Your task to perform on an android device: uninstall "Contacts" Image 0: 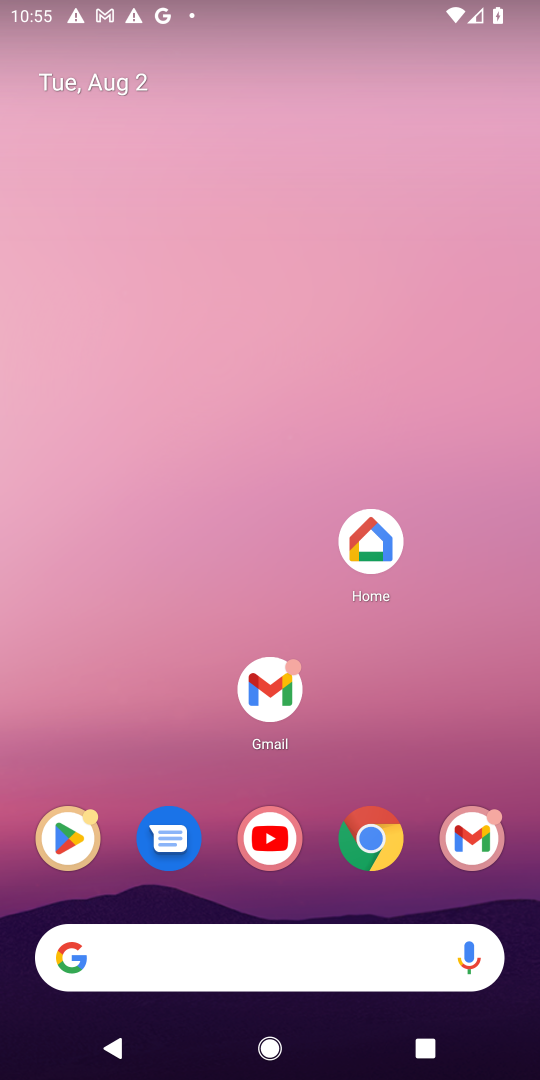
Step 0: press home button
Your task to perform on an android device: uninstall "Contacts" Image 1: 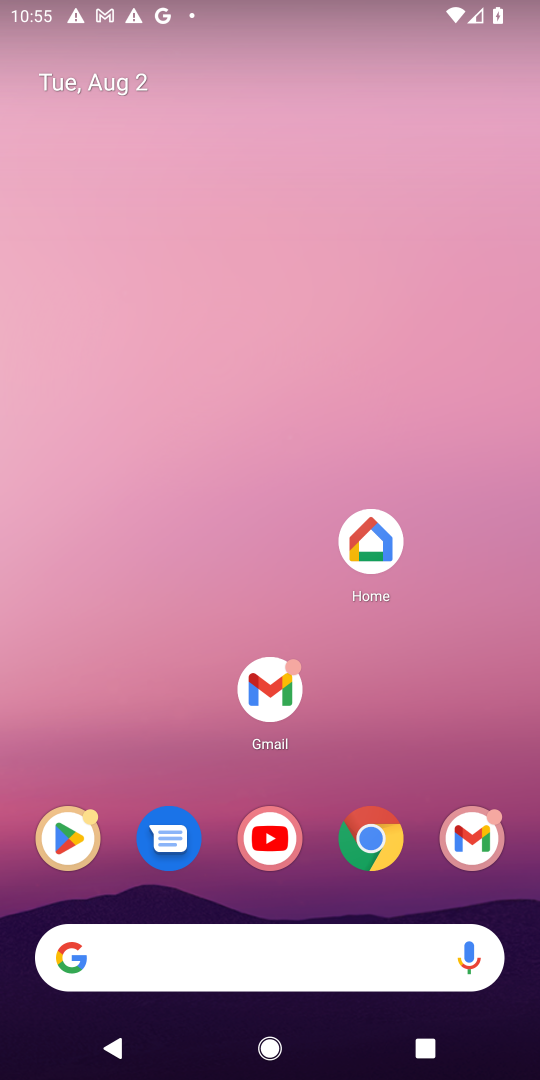
Step 1: drag from (427, 739) to (460, 170)
Your task to perform on an android device: uninstall "Contacts" Image 2: 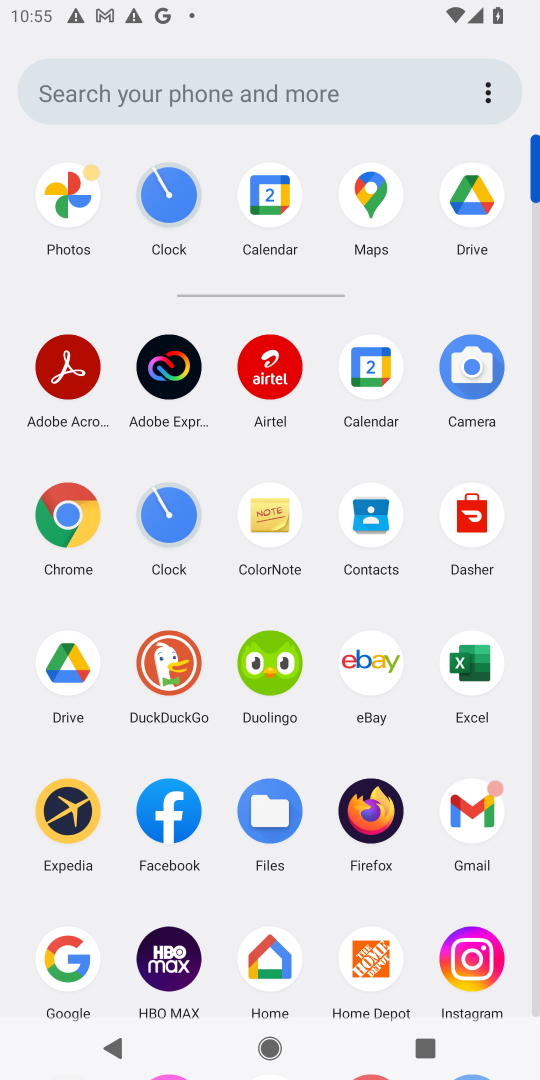
Step 2: drag from (305, 900) to (310, 436)
Your task to perform on an android device: uninstall "Contacts" Image 3: 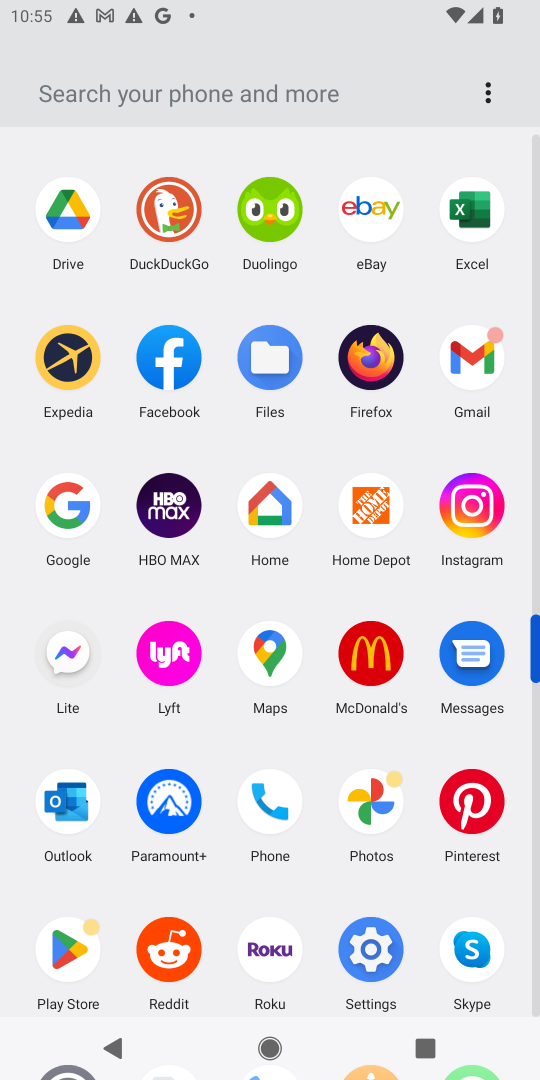
Step 3: click (58, 952)
Your task to perform on an android device: uninstall "Contacts" Image 4: 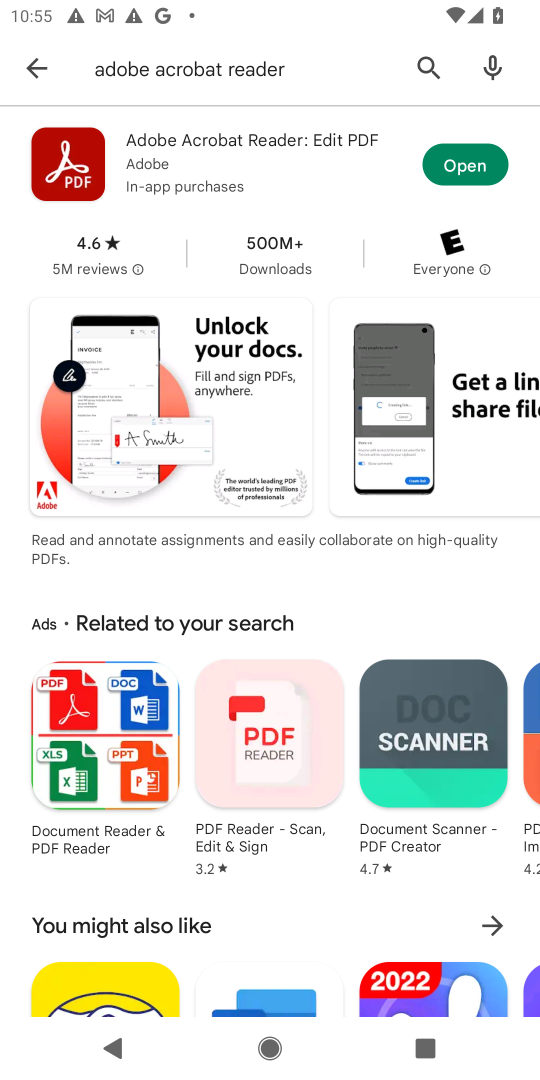
Step 4: click (425, 64)
Your task to perform on an android device: uninstall "Contacts" Image 5: 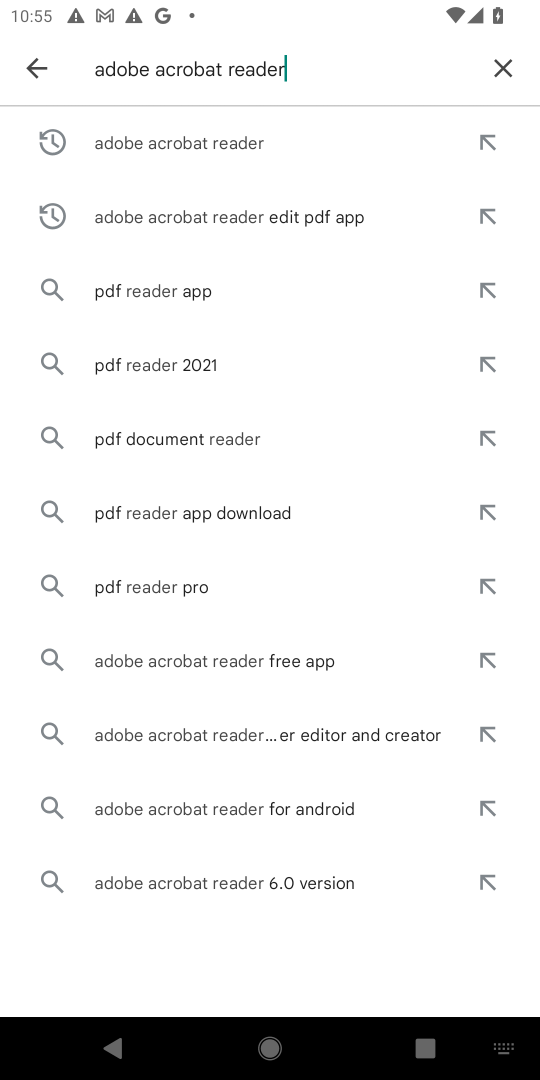
Step 5: click (503, 69)
Your task to perform on an android device: uninstall "Contacts" Image 6: 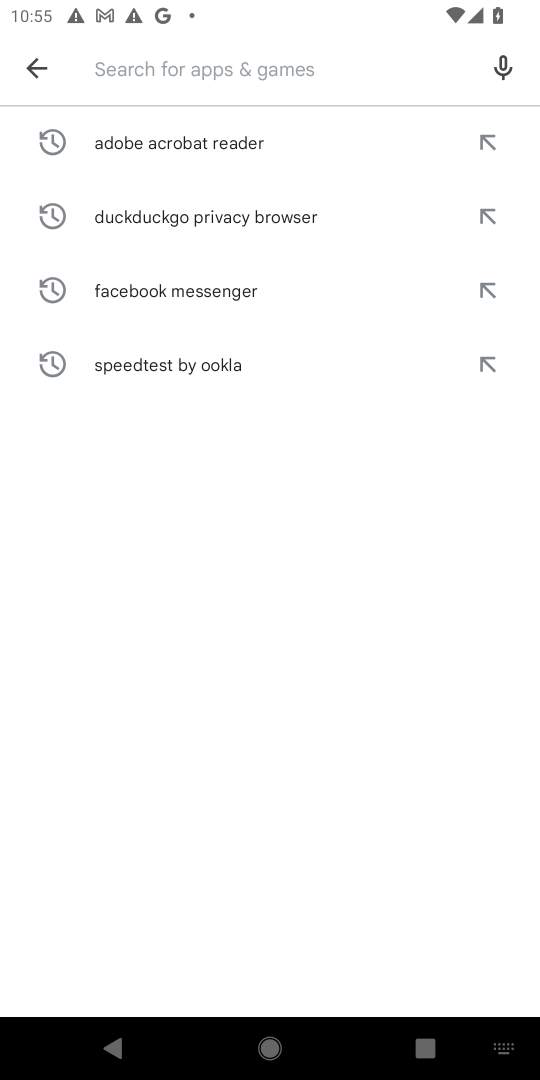
Step 6: click (294, 83)
Your task to perform on an android device: uninstall "Contacts" Image 7: 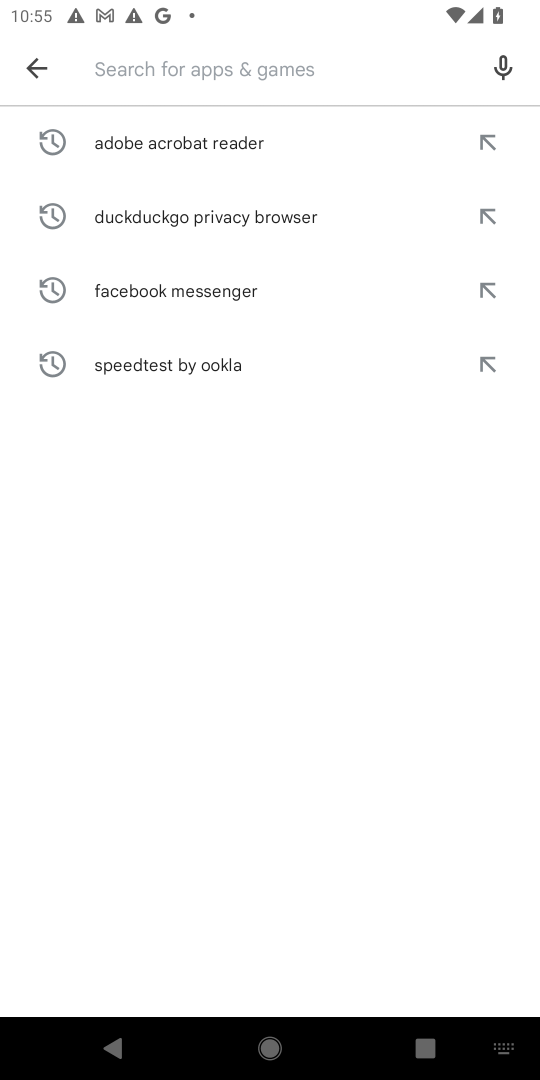
Step 7: click (321, 75)
Your task to perform on an android device: uninstall "Contacts" Image 8: 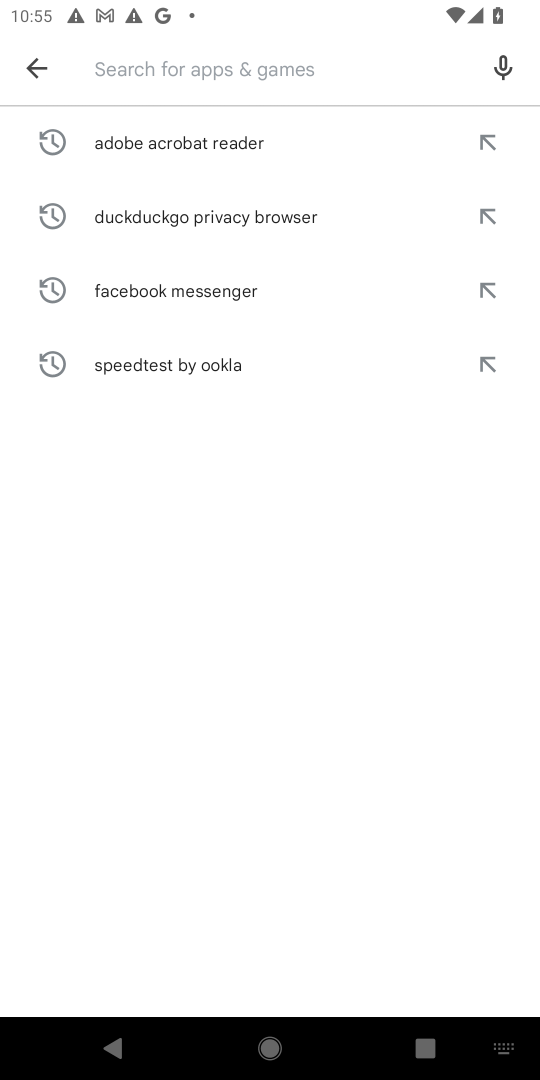
Step 8: type "contacts"
Your task to perform on an android device: uninstall "Contacts" Image 9: 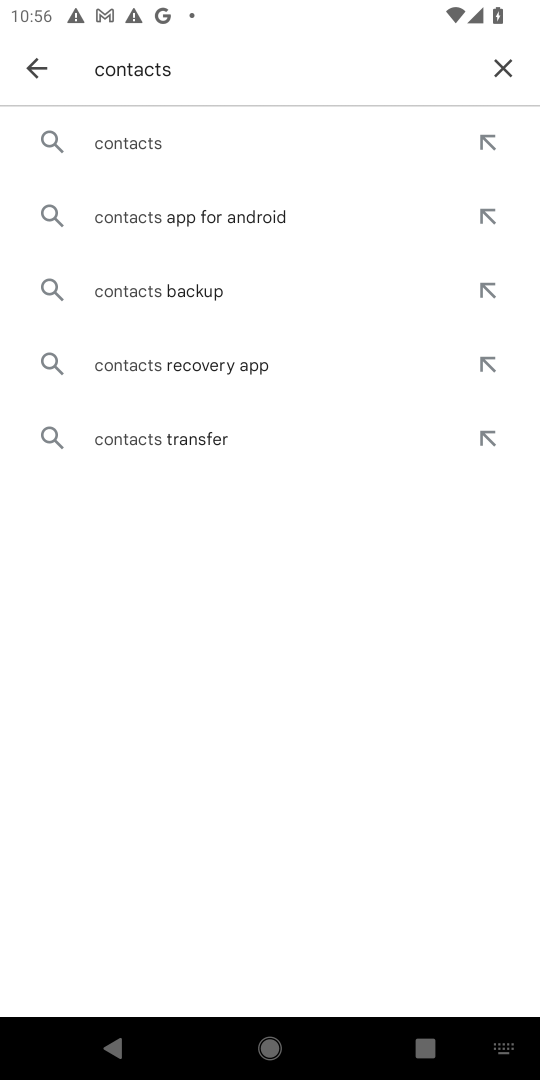
Step 9: click (172, 143)
Your task to perform on an android device: uninstall "Contacts" Image 10: 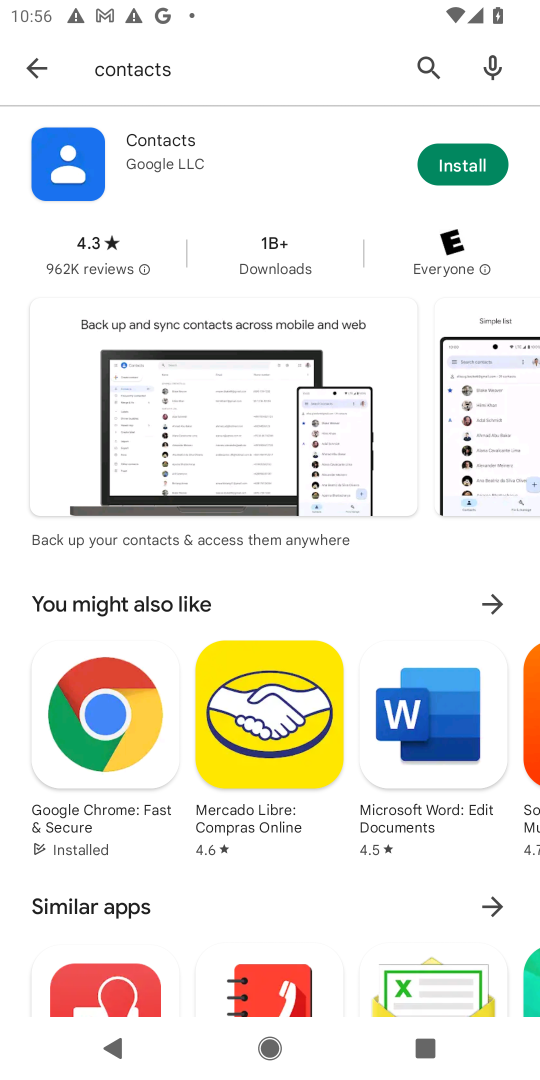
Step 10: task complete